Your task to perform on an android device: Go to network settings Image 0: 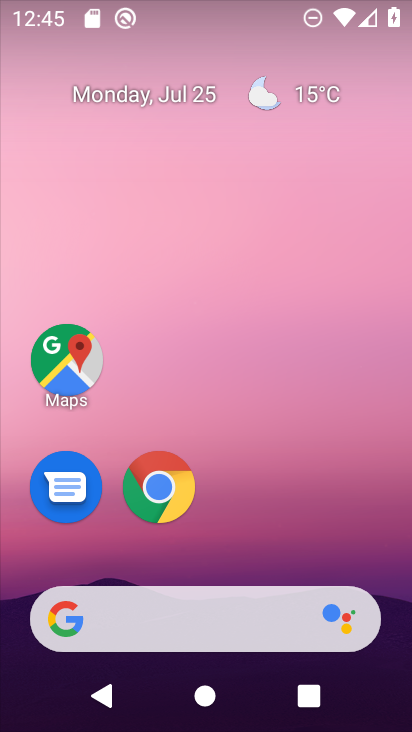
Step 0: drag from (294, 556) to (298, 0)
Your task to perform on an android device: Go to network settings Image 1: 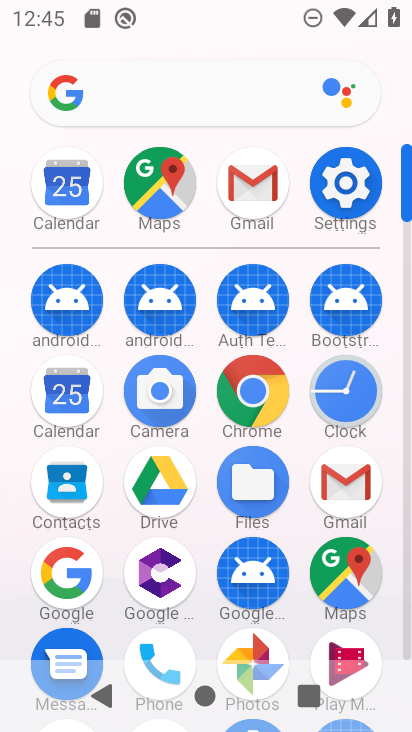
Step 1: click (345, 170)
Your task to perform on an android device: Go to network settings Image 2: 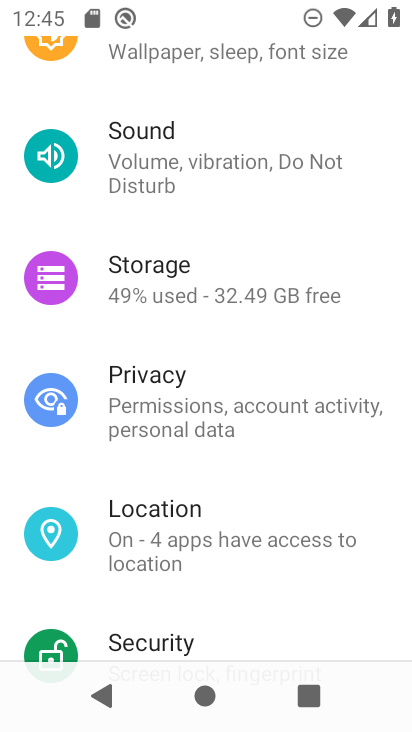
Step 2: drag from (260, 205) to (192, 665)
Your task to perform on an android device: Go to network settings Image 3: 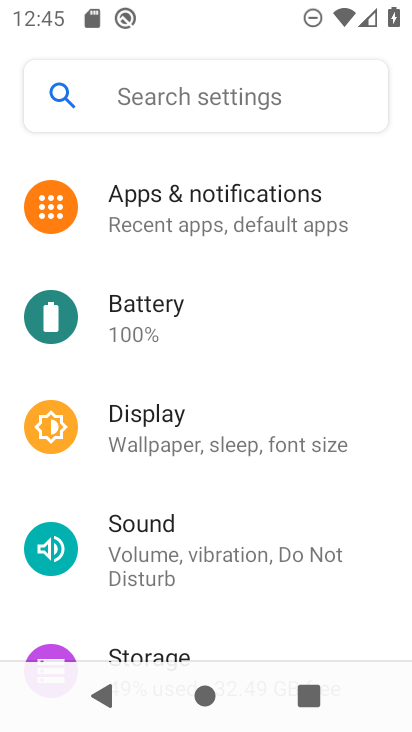
Step 3: drag from (200, 567) to (318, 136)
Your task to perform on an android device: Go to network settings Image 4: 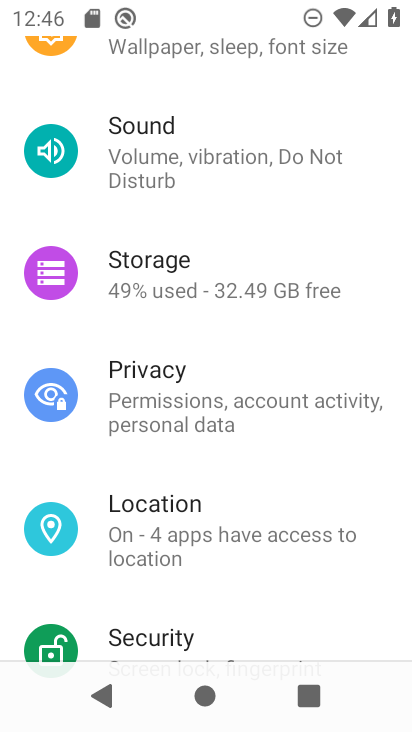
Step 4: drag from (282, 107) to (188, 671)
Your task to perform on an android device: Go to network settings Image 5: 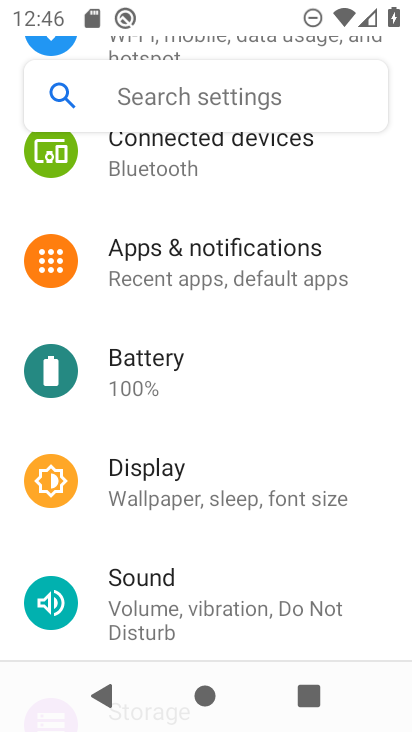
Step 5: drag from (223, 239) to (184, 717)
Your task to perform on an android device: Go to network settings Image 6: 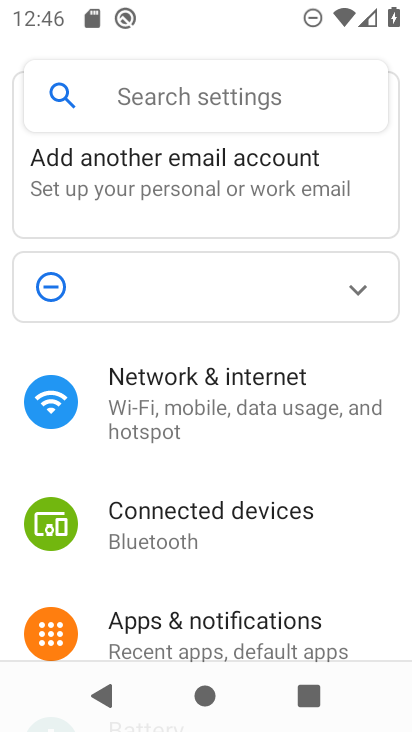
Step 6: click (152, 416)
Your task to perform on an android device: Go to network settings Image 7: 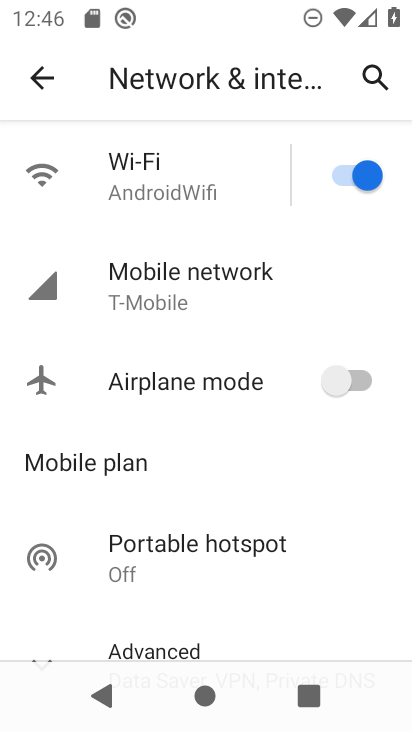
Step 7: task complete